Your task to perform on an android device: see tabs open on other devices in the chrome app Image 0: 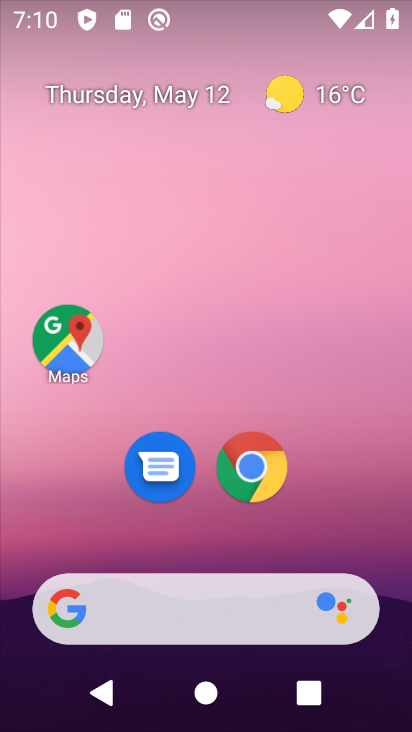
Step 0: click (276, 458)
Your task to perform on an android device: see tabs open on other devices in the chrome app Image 1: 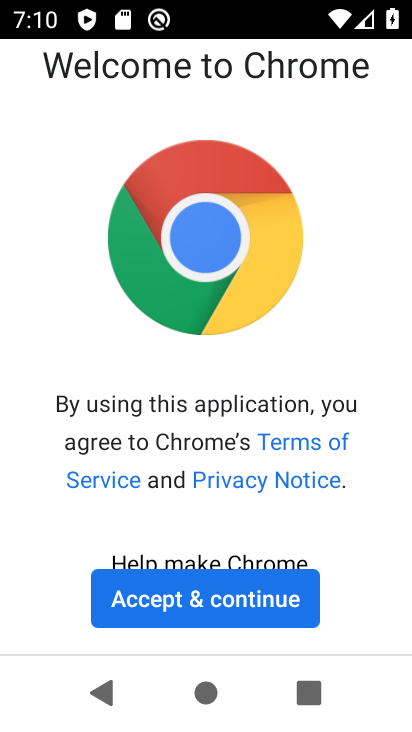
Step 1: click (289, 603)
Your task to perform on an android device: see tabs open on other devices in the chrome app Image 2: 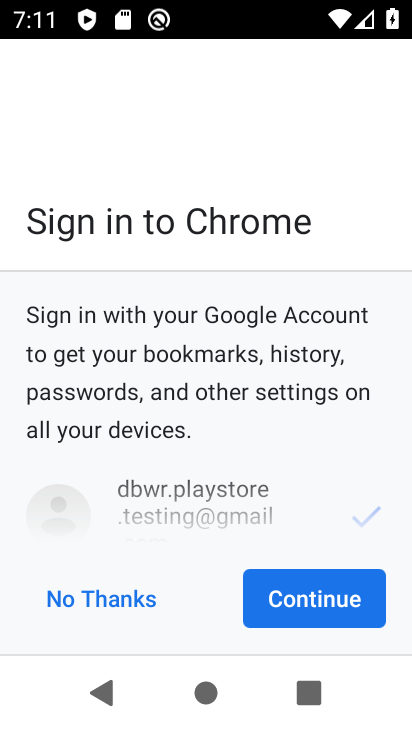
Step 2: click (293, 605)
Your task to perform on an android device: see tabs open on other devices in the chrome app Image 3: 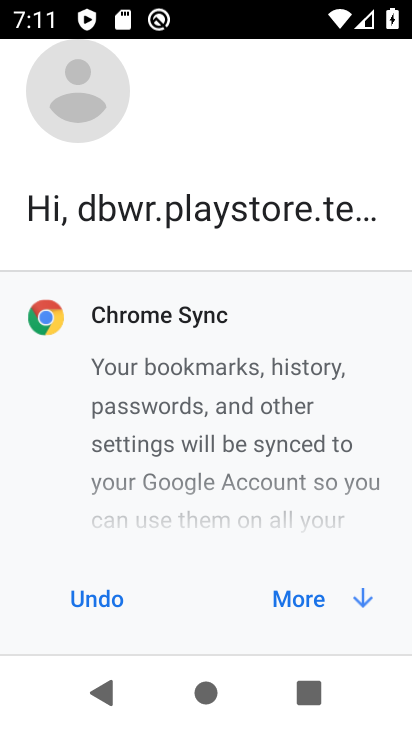
Step 3: click (293, 605)
Your task to perform on an android device: see tabs open on other devices in the chrome app Image 4: 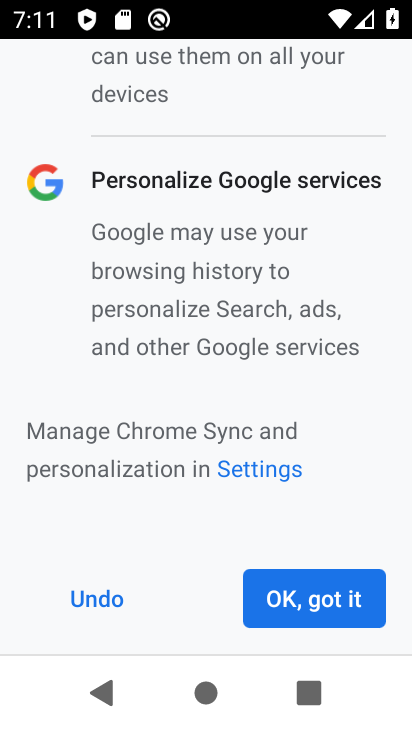
Step 4: click (293, 605)
Your task to perform on an android device: see tabs open on other devices in the chrome app Image 5: 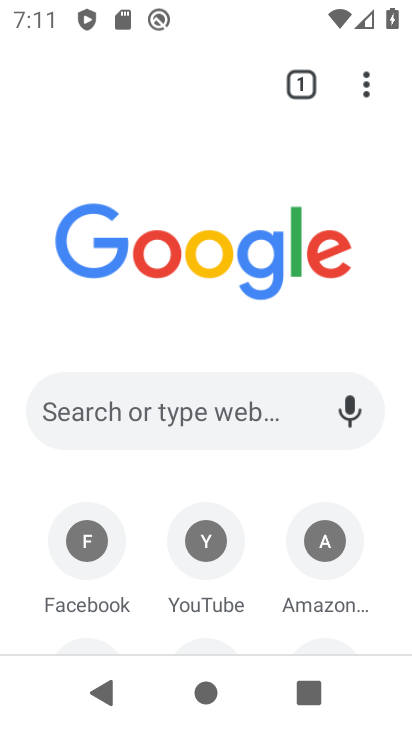
Step 5: click (370, 99)
Your task to perform on an android device: see tabs open on other devices in the chrome app Image 6: 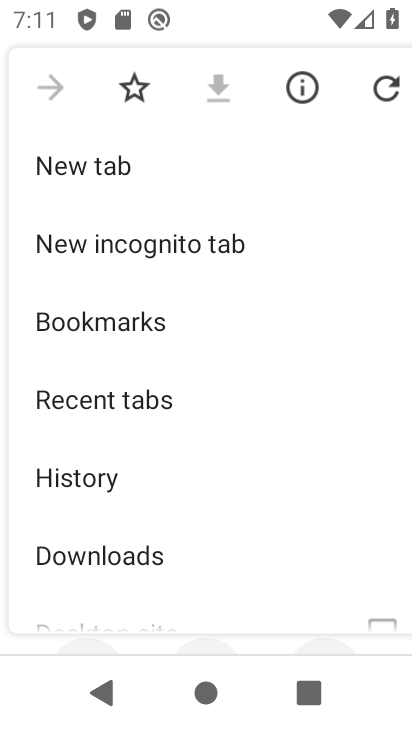
Step 6: click (167, 387)
Your task to perform on an android device: see tabs open on other devices in the chrome app Image 7: 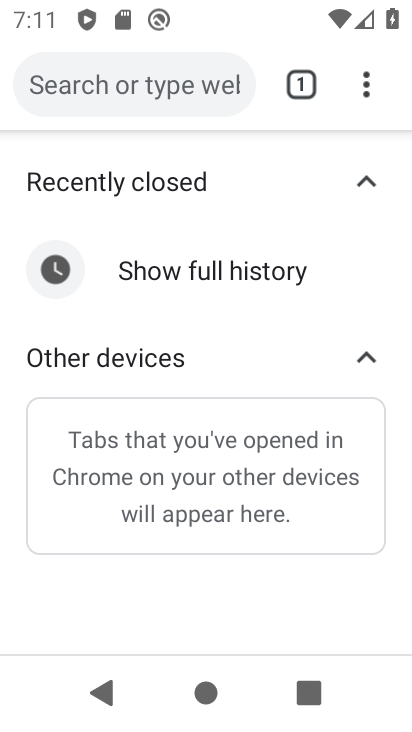
Step 7: task complete